Your task to perform on an android device: toggle pop-ups in chrome Image 0: 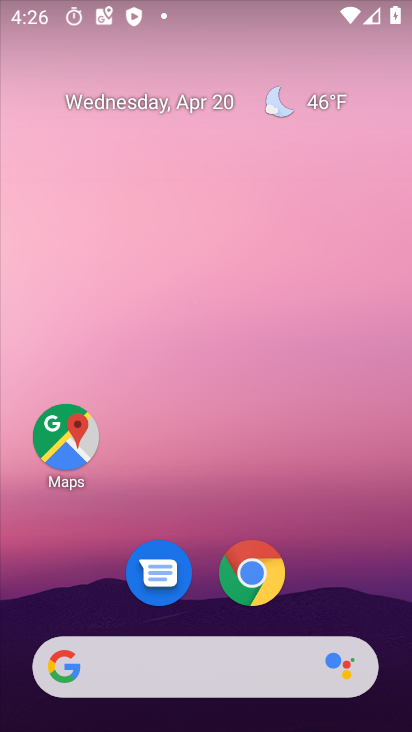
Step 0: click (259, 570)
Your task to perform on an android device: toggle pop-ups in chrome Image 1: 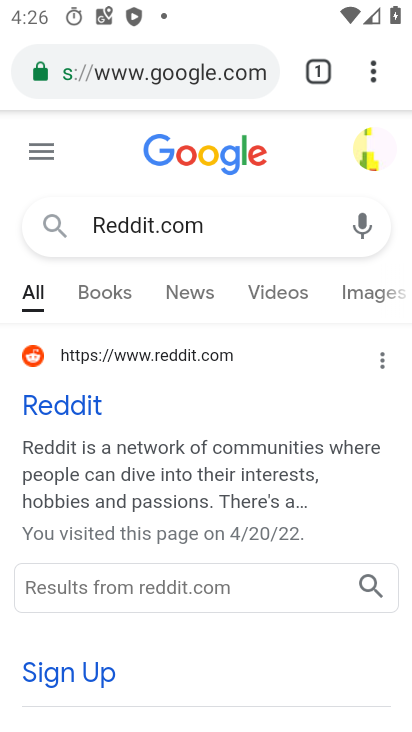
Step 1: click (369, 66)
Your task to perform on an android device: toggle pop-ups in chrome Image 2: 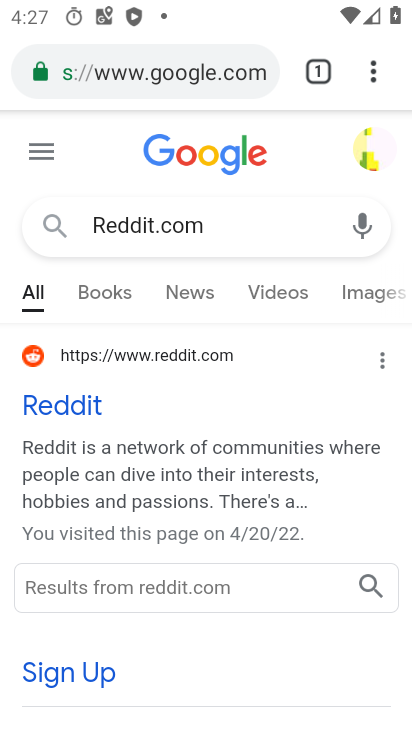
Step 2: click (374, 67)
Your task to perform on an android device: toggle pop-ups in chrome Image 3: 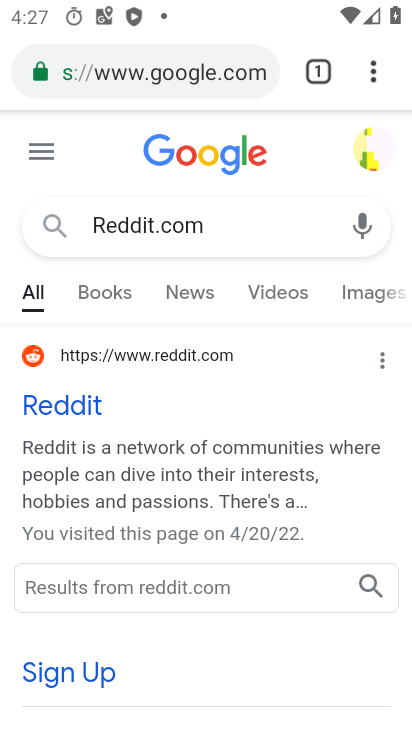
Step 3: click (374, 67)
Your task to perform on an android device: toggle pop-ups in chrome Image 4: 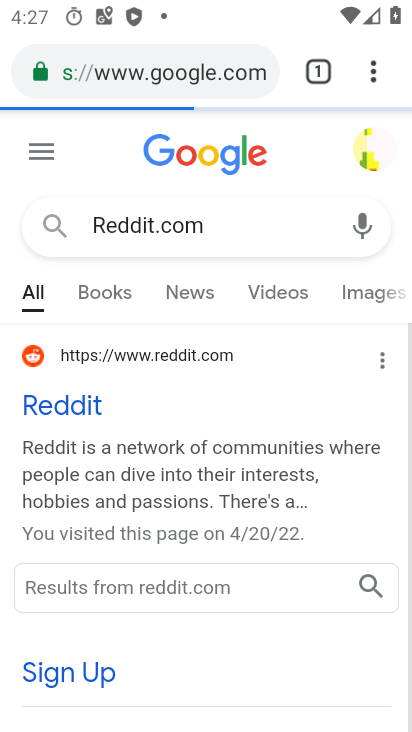
Step 4: click (373, 71)
Your task to perform on an android device: toggle pop-ups in chrome Image 5: 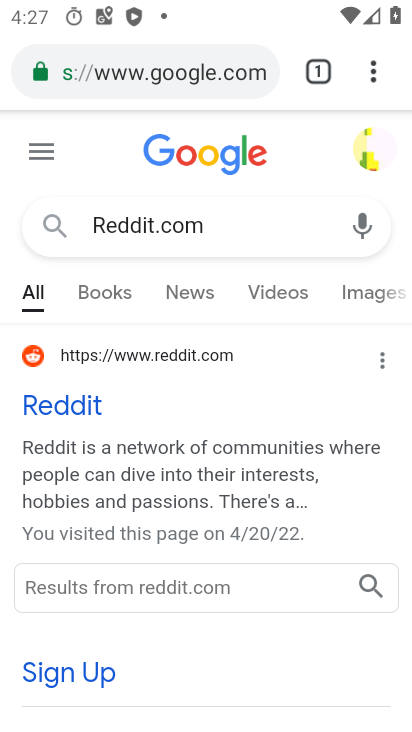
Step 5: click (373, 63)
Your task to perform on an android device: toggle pop-ups in chrome Image 6: 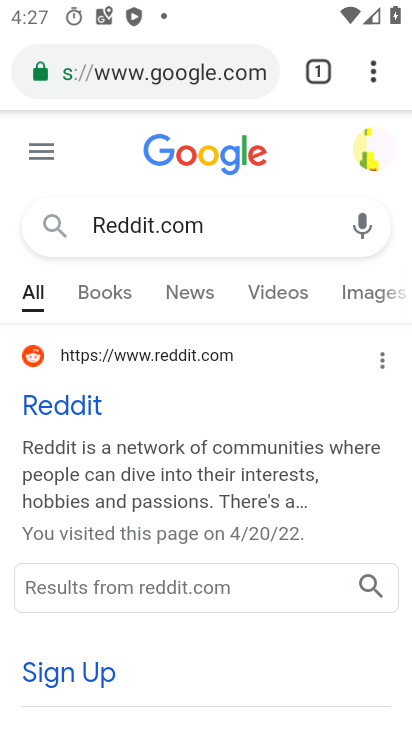
Step 6: click (373, 63)
Your task to perform on an android device: toggle pop-ups in chrome Image 7: 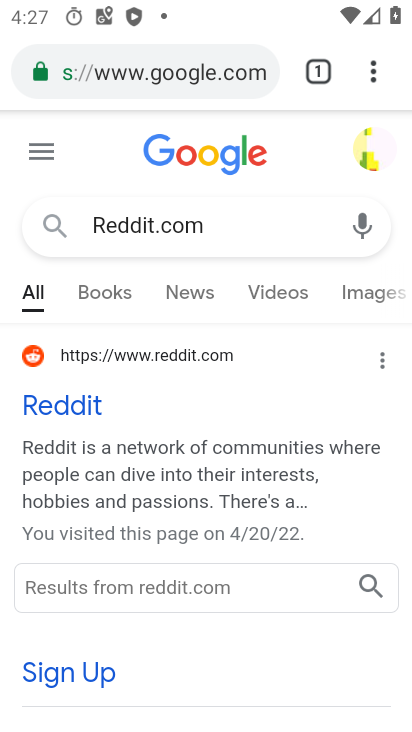
Step 7: click (373, 63)
Your task to perform on an android device: toggle pop-ups in chrome Image 8: 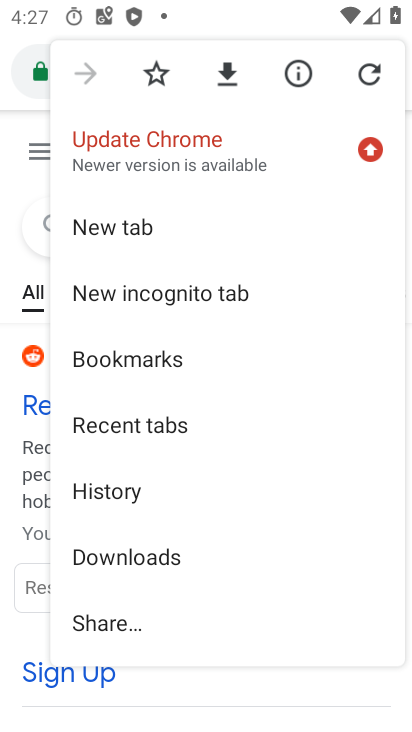
Step 8: drag from (236, 605) to (215, 265)
Your task to perform on an android device: toggle pop-ups in chrome Image 9: 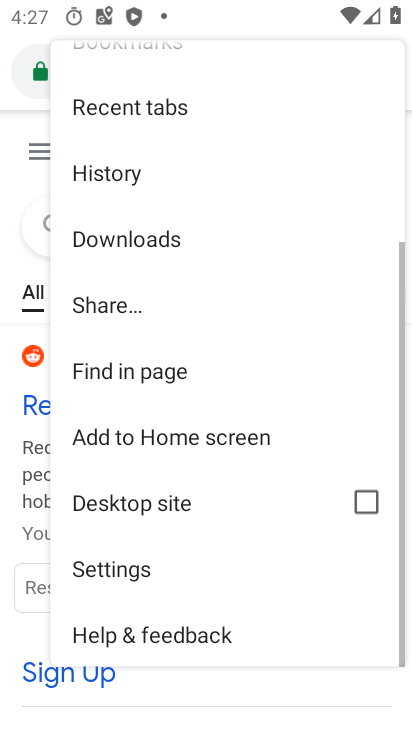
Step 9: click (115, 558)
Your task to perform on an android device: toggle pop-ups in chrome Image 10: 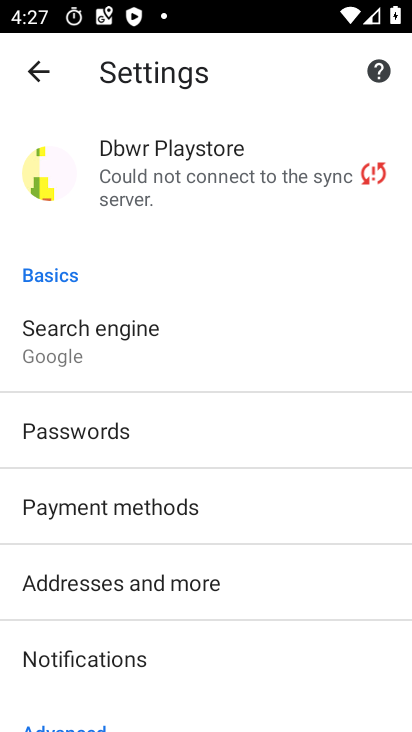
Step 10: drag from (272, 692) to (262, 426)
Your task to perform on an android device: toggle pop-ups in chrome Image 11: 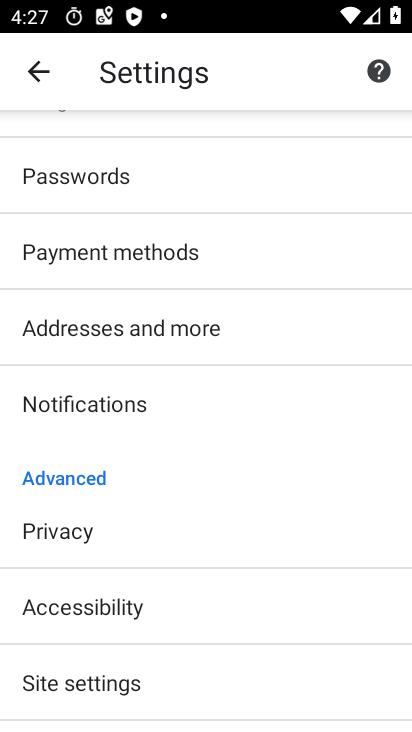
Step 11: click (86, 669)
Your task to perform on an android device: toggle pop-ups in chrome Image 12: 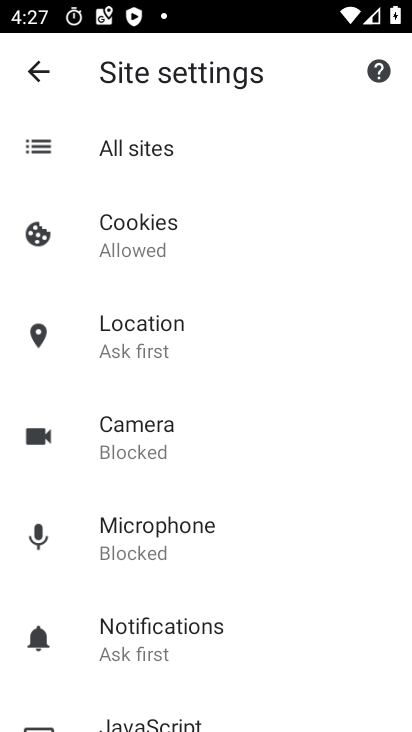
Step 12: drag from (297, 678) to (274, 369)
Your task to perform on an android device: toggle pop-ups in chrome Image 13: 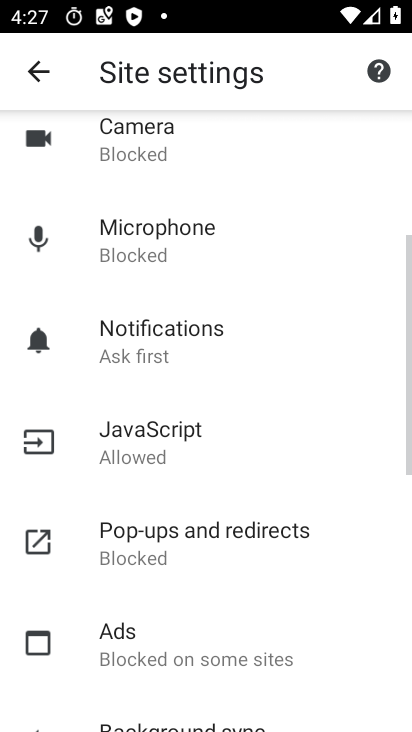
Step 13: click (129, 541)
Your task to perform on an android device: toggle pop-ups in chrome Image 14: 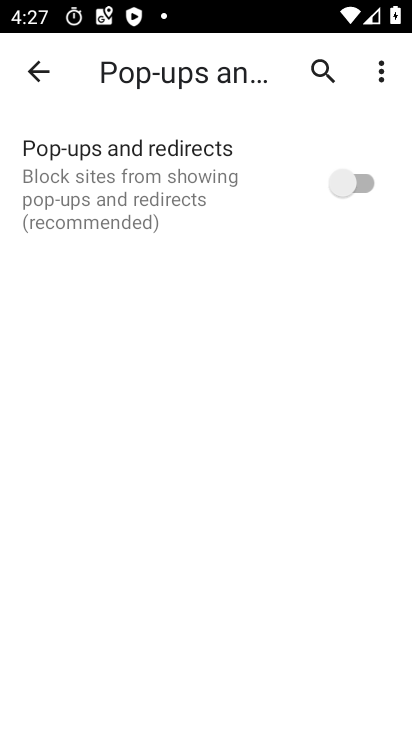
Step 14: click (364, 174)
Your task to perform on an android device: toggle pop-ups in chrome Image 15: 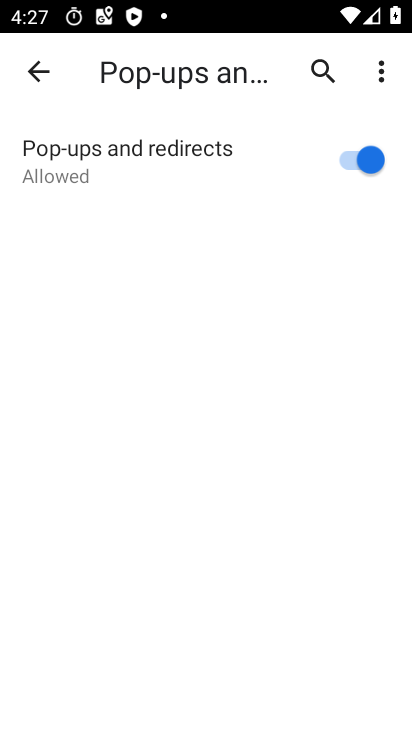
Step 15: task complete